Your task to perform on an android device: allow notifications from all sites in the chrome app Image 0: 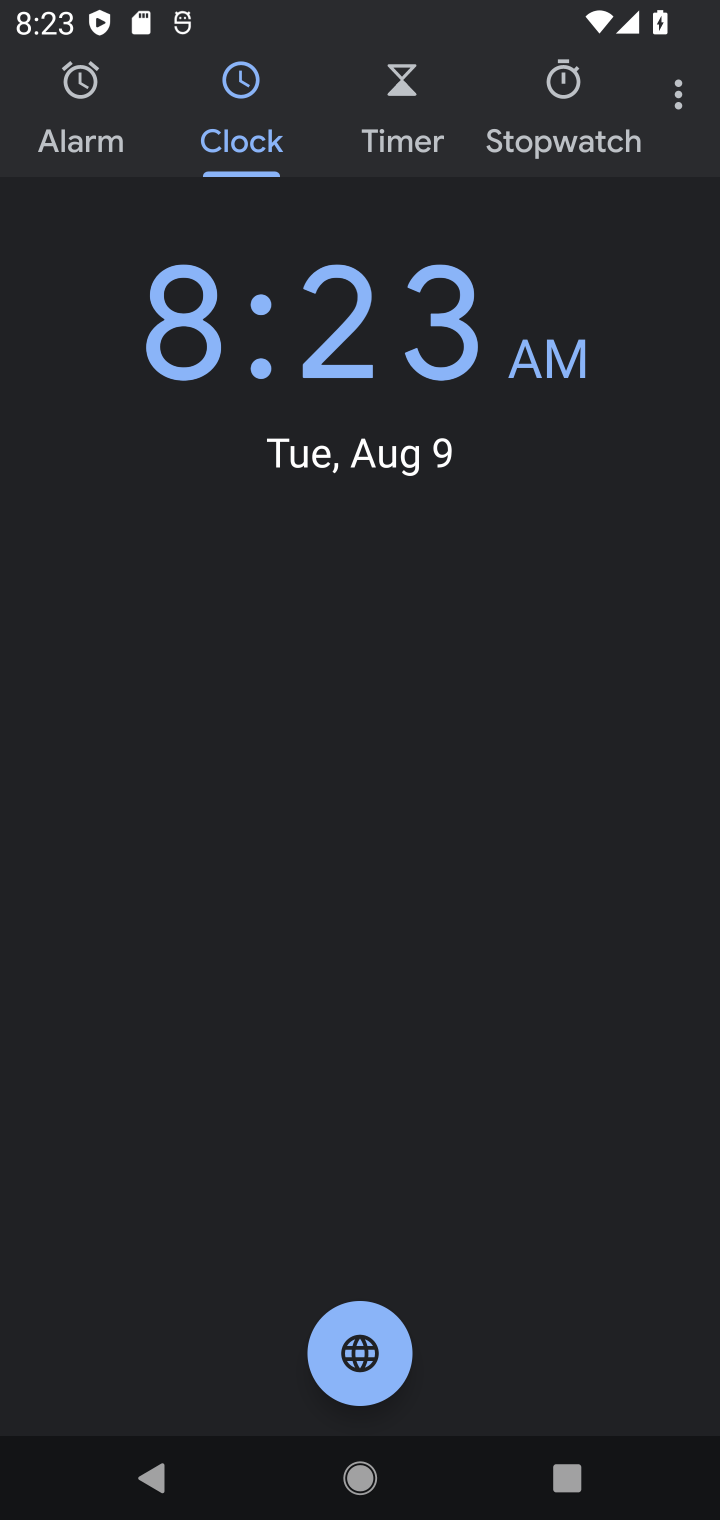
Step 0: press home button
Your task to perform on an android device: allow notifications from all sites in the chrome app Image 1: 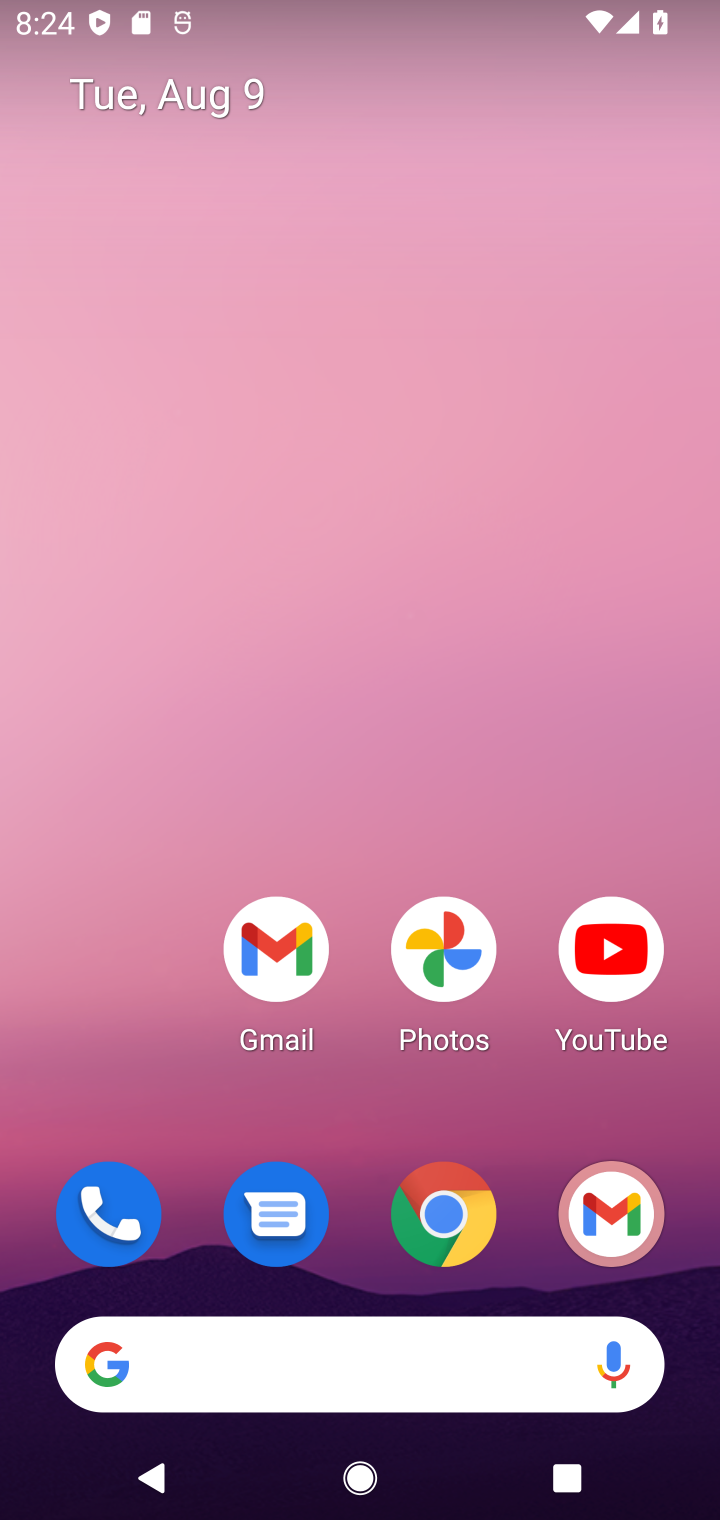
Step 1: click (434, 1186)
Your task to perform on an android device: allow notifications from all sites in the chrome app Image 2: 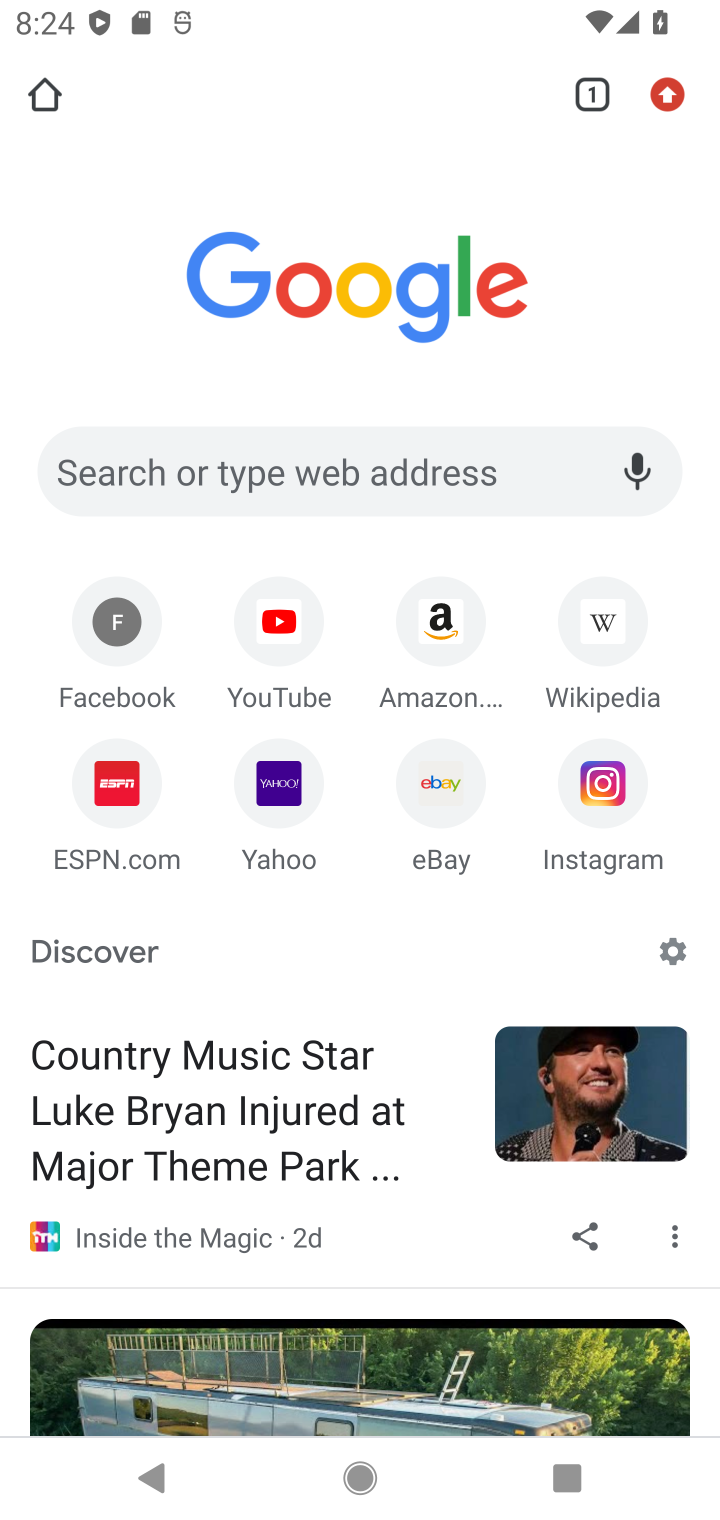
Step 2: click (664, 95)
Your task to perform on an android device: allow notifications from all sites in the chrome app Image 3: 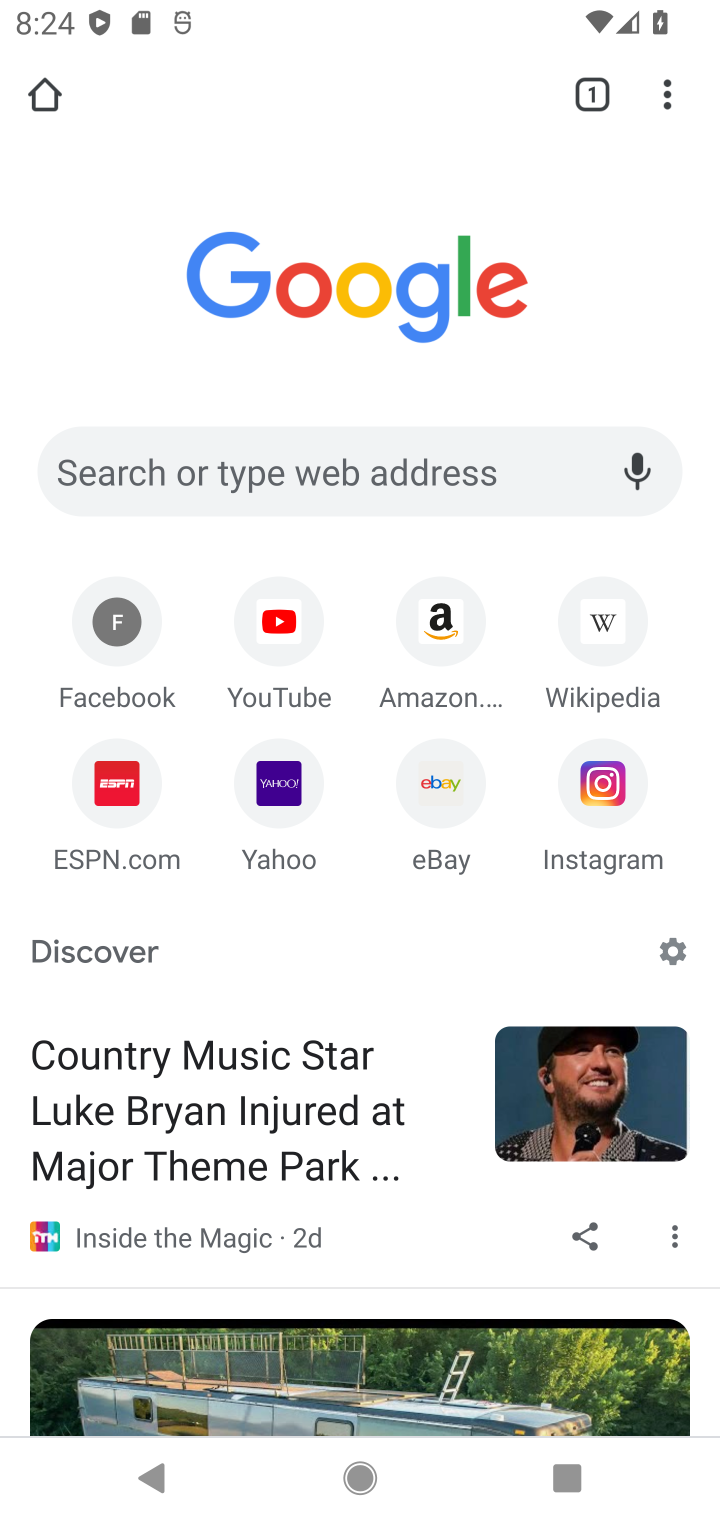
Step 3: click (673, 116)
Your task to perform on an android device: allow notifications from all sites in the chrome app Image 4: 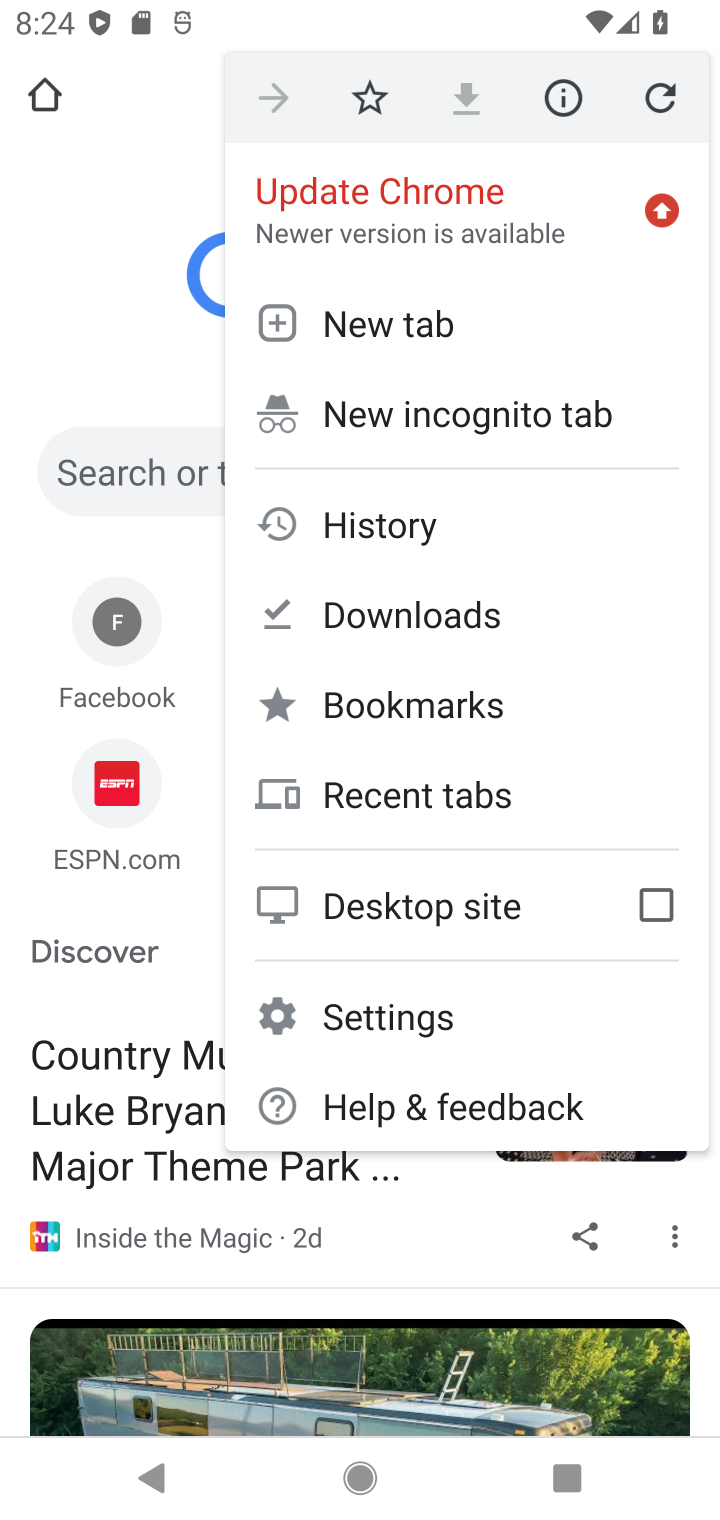
Step 4: click (377, 1026)
Your task to perform on an android device: allow notifications from all sites in the chrome app Image 5: 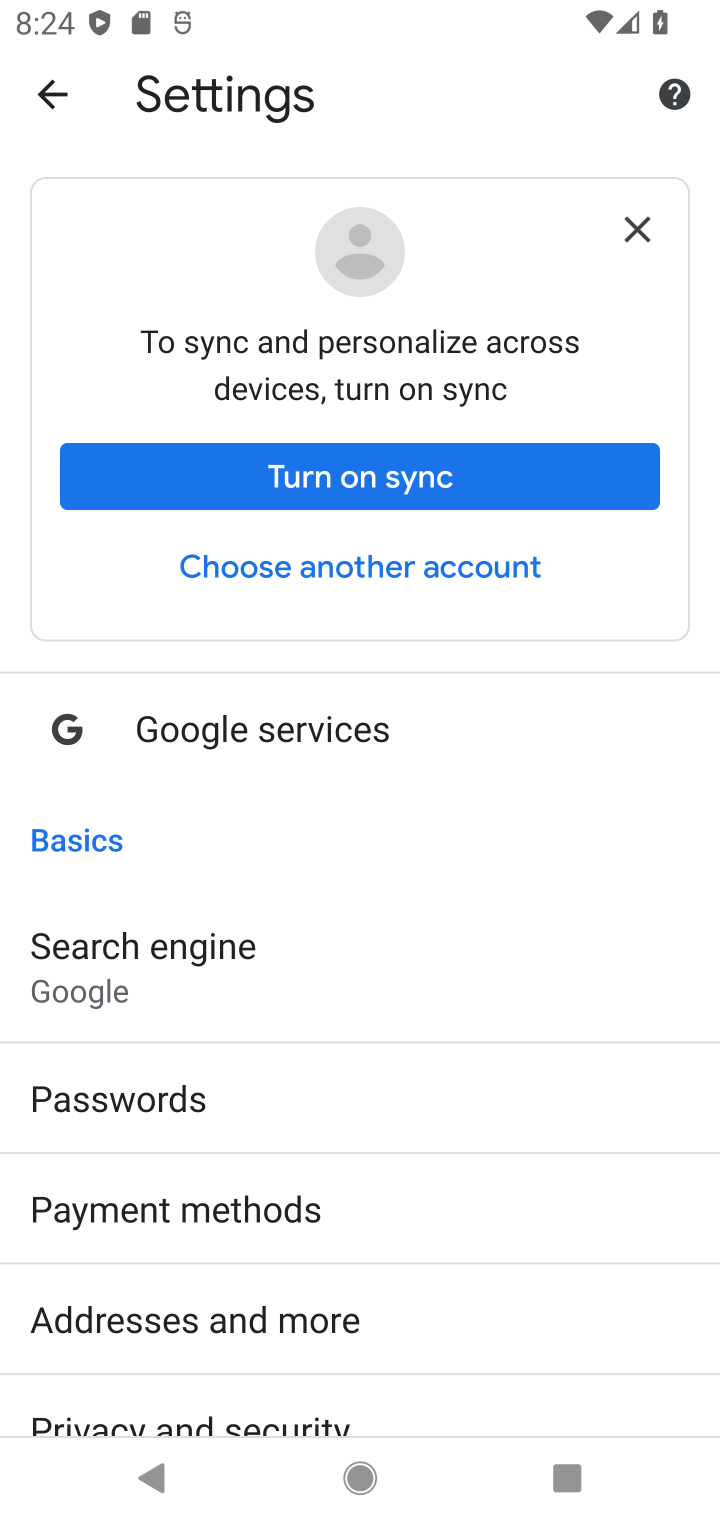
Step 5: drag from (534, 1118) to (245, 270)
Your task to perform on an android device: allow notifications from all sites in the chrome app Image 6: 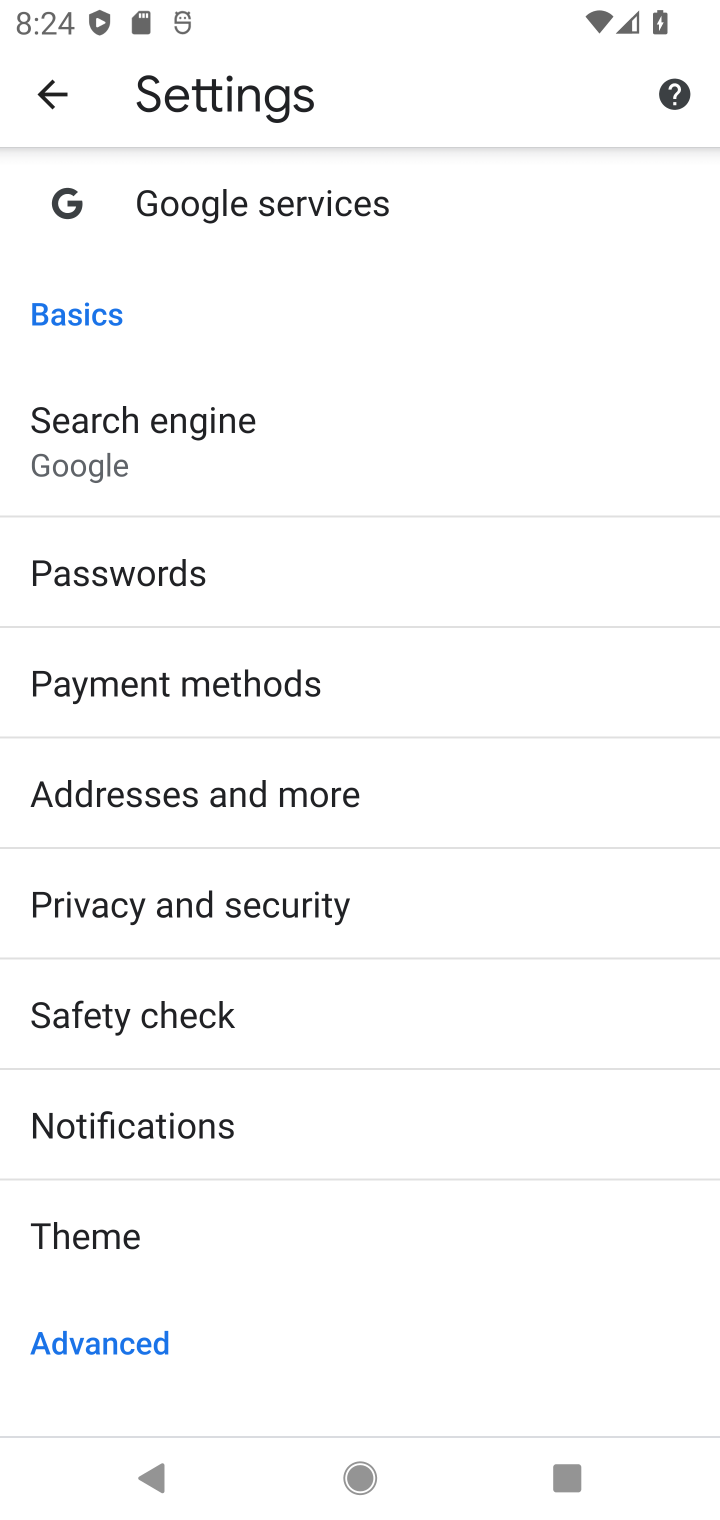
Step 6: click (167, 1131)
Your task to perform on an android device: allow notifications from all sites in the chrome app Image 7: 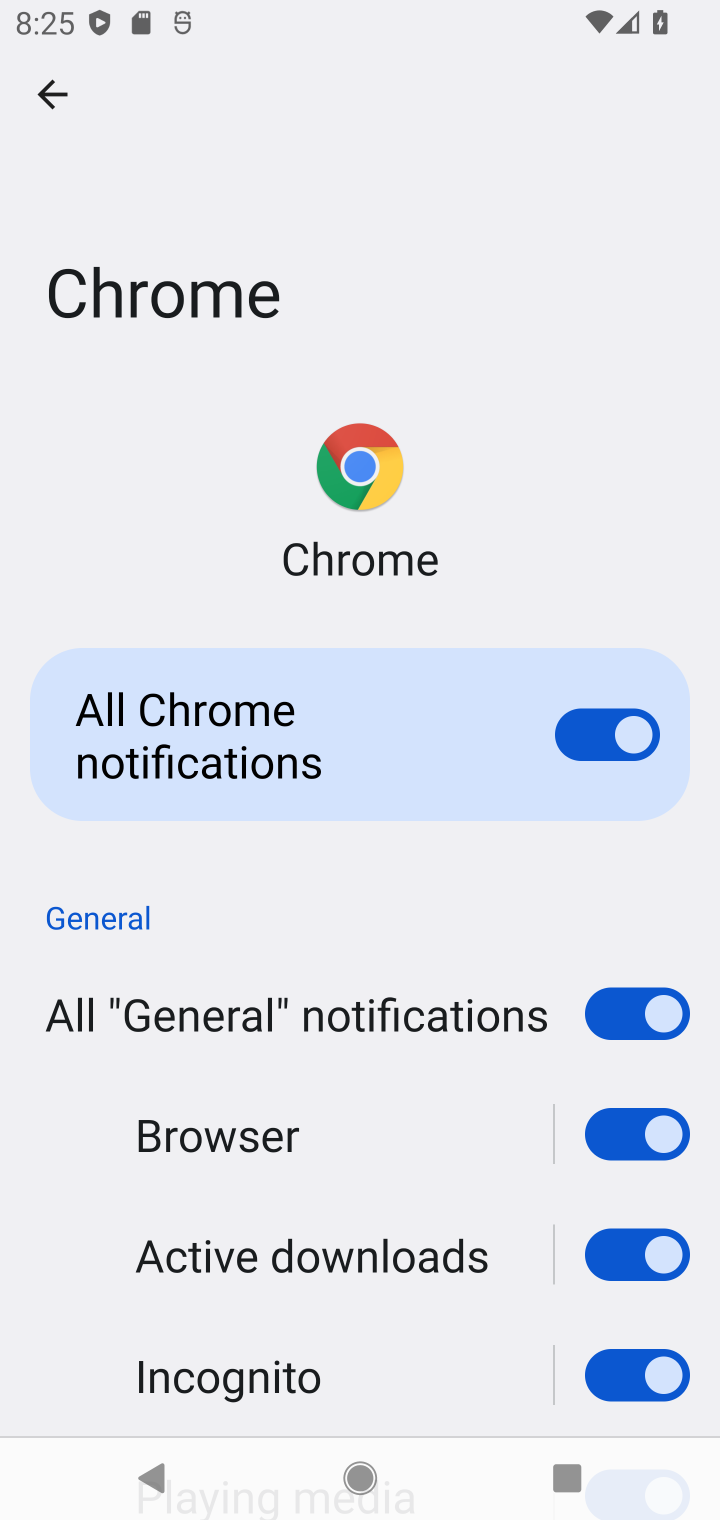
Step 7: task complete